Your task to perform on an android device: Open eBay Image 0: 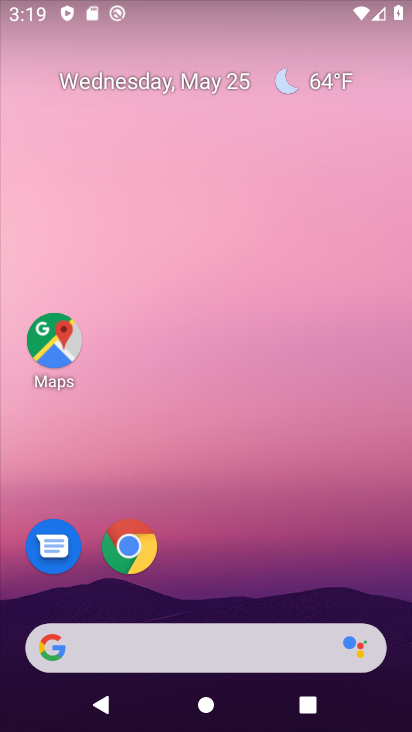
Step 0: click (147, 571)
Your task to perform on an android device: Open eBay Image 1: 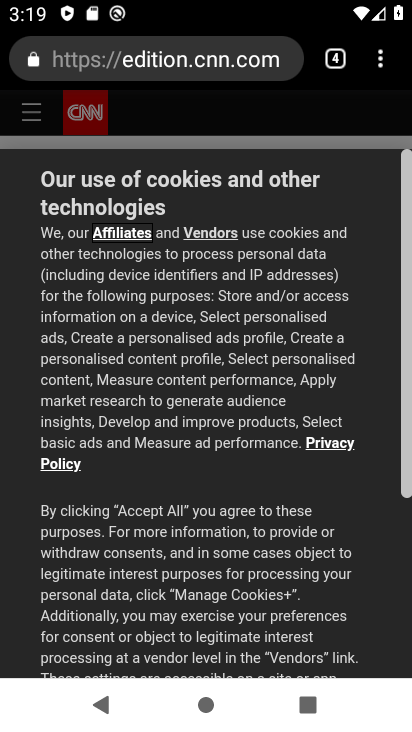
Step 1: click (341, 66)
Your task to perform on an android device: Open eBay Image 2: 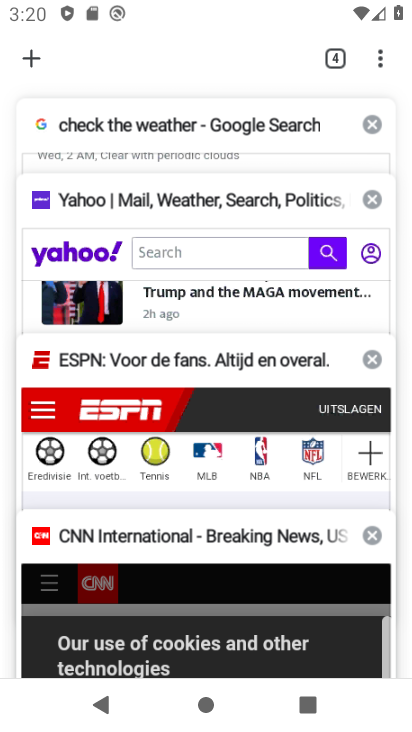
Step 2: click (31, 61)
Your task to perform on an android device: Open eBay Image 3: 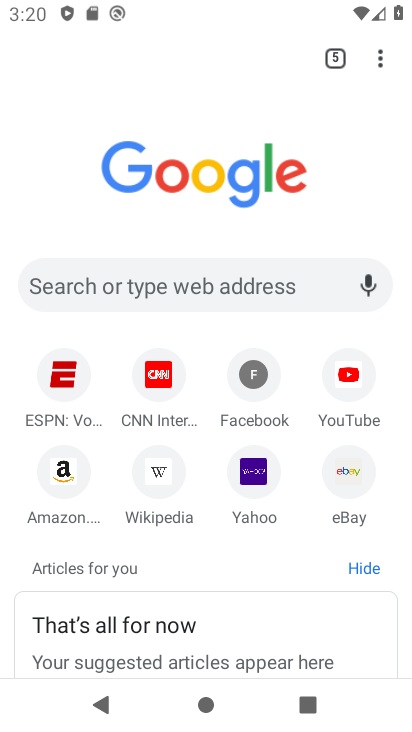
Step 3: click (144, 295)
Your task to perform on an android device: Open eBay Image 4: 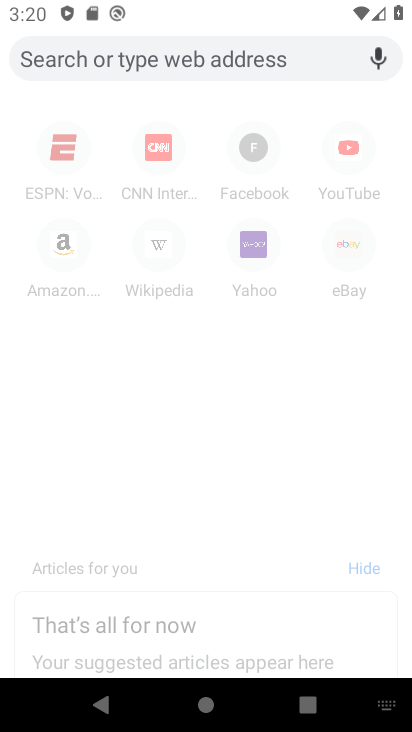
Step 4: type "ebay"
Your task to perform on an android device: Open eBay Image 5: 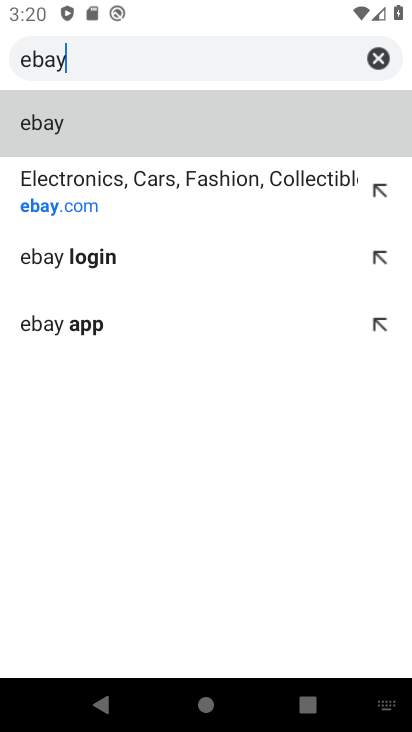
Step 5: click (174, 195)
Your task to perform on an android device: Open eBay Image 6: 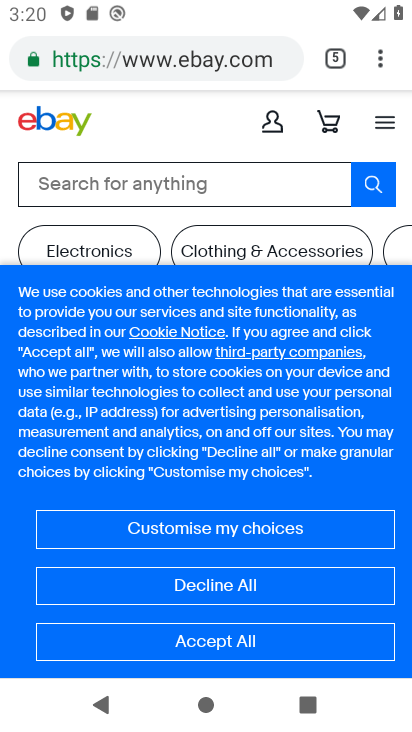
Step 6: task complete